Your task to perform on an android device: Search for "acer nitro" on target.com, select the first entry, and add it to the cart. Image 0: 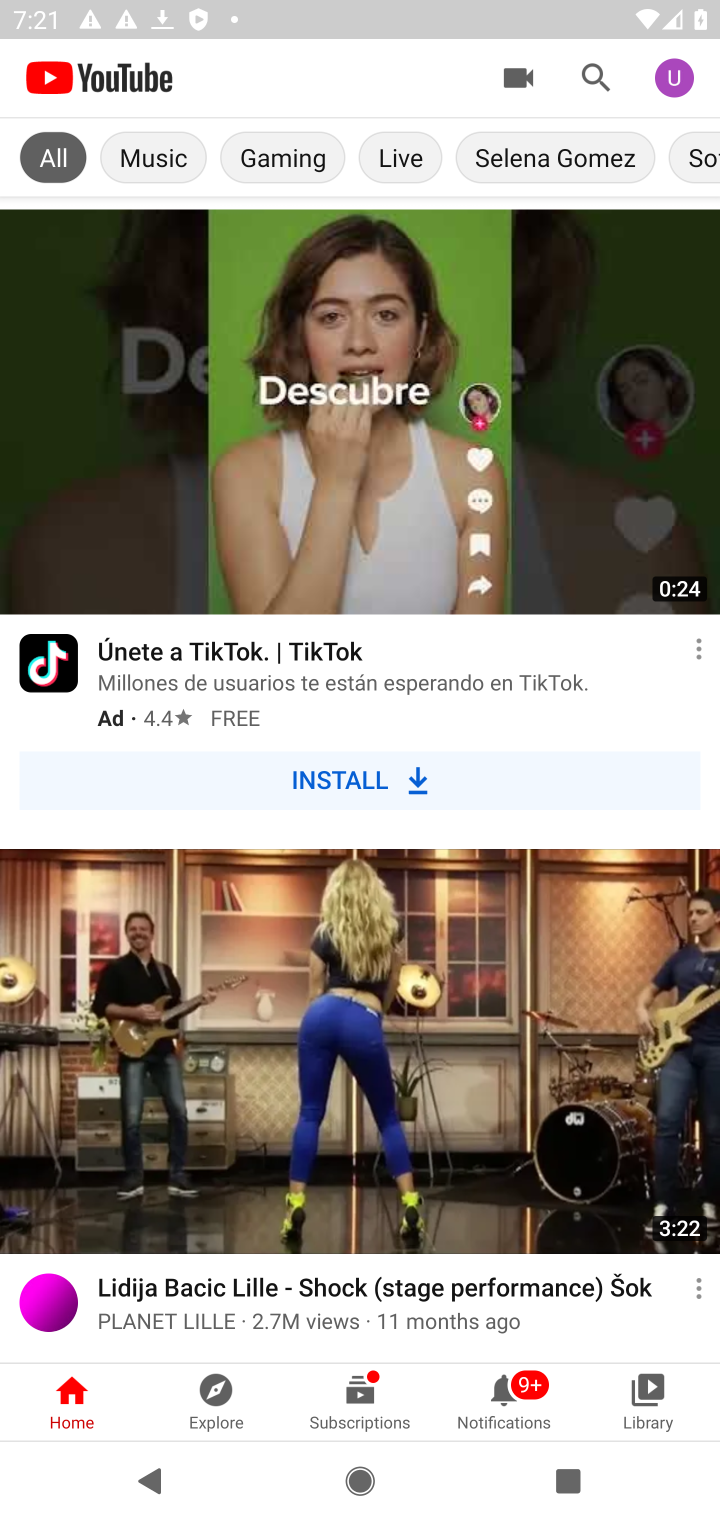
Step 0: press home button
Your task to perform on an android device: Search for "acer nitro" on target.com, select the first entry, and add it to the cart. Image 1: 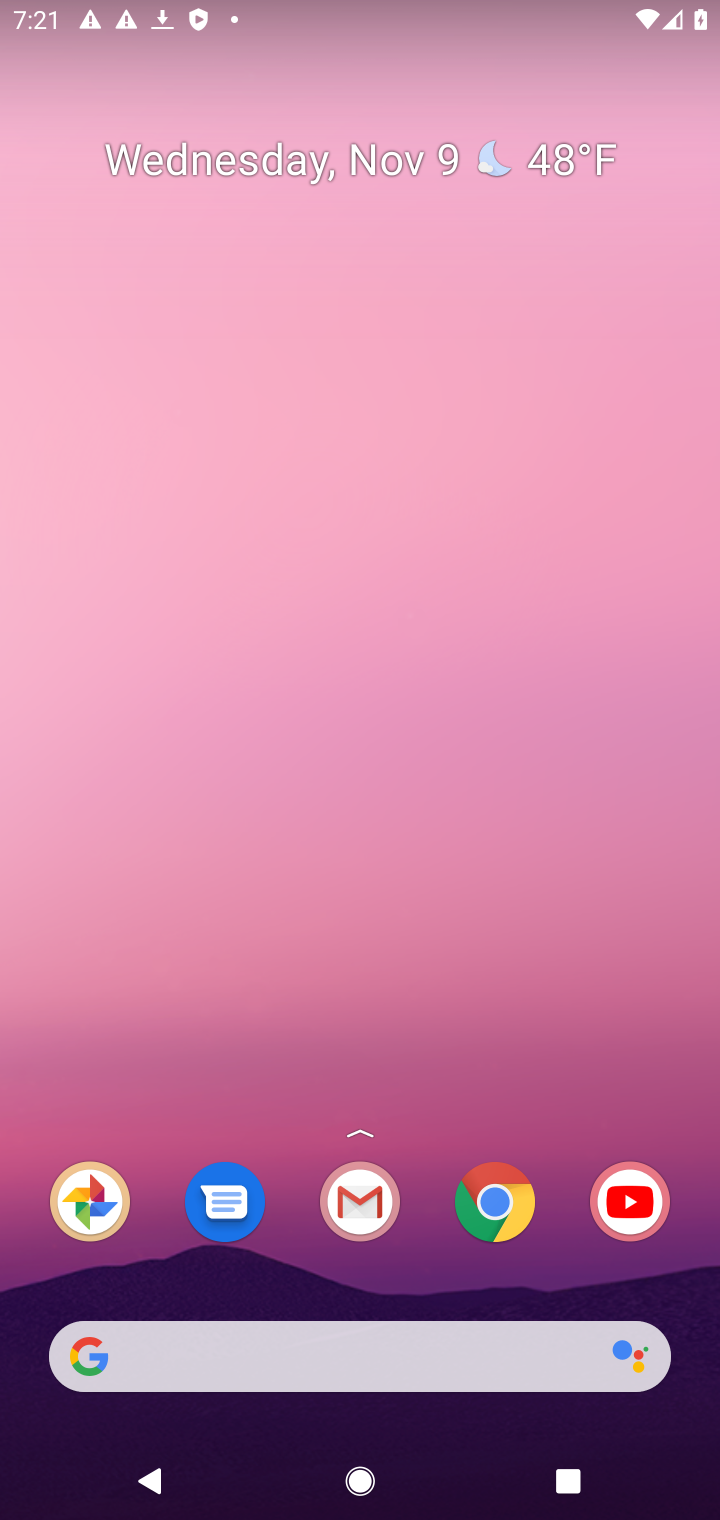
Step 1: click (498, 1202)
Your task to perform on an android device: Search for "acer nitro" on target.com, select the first entry, and add it to the cart. Image 2: 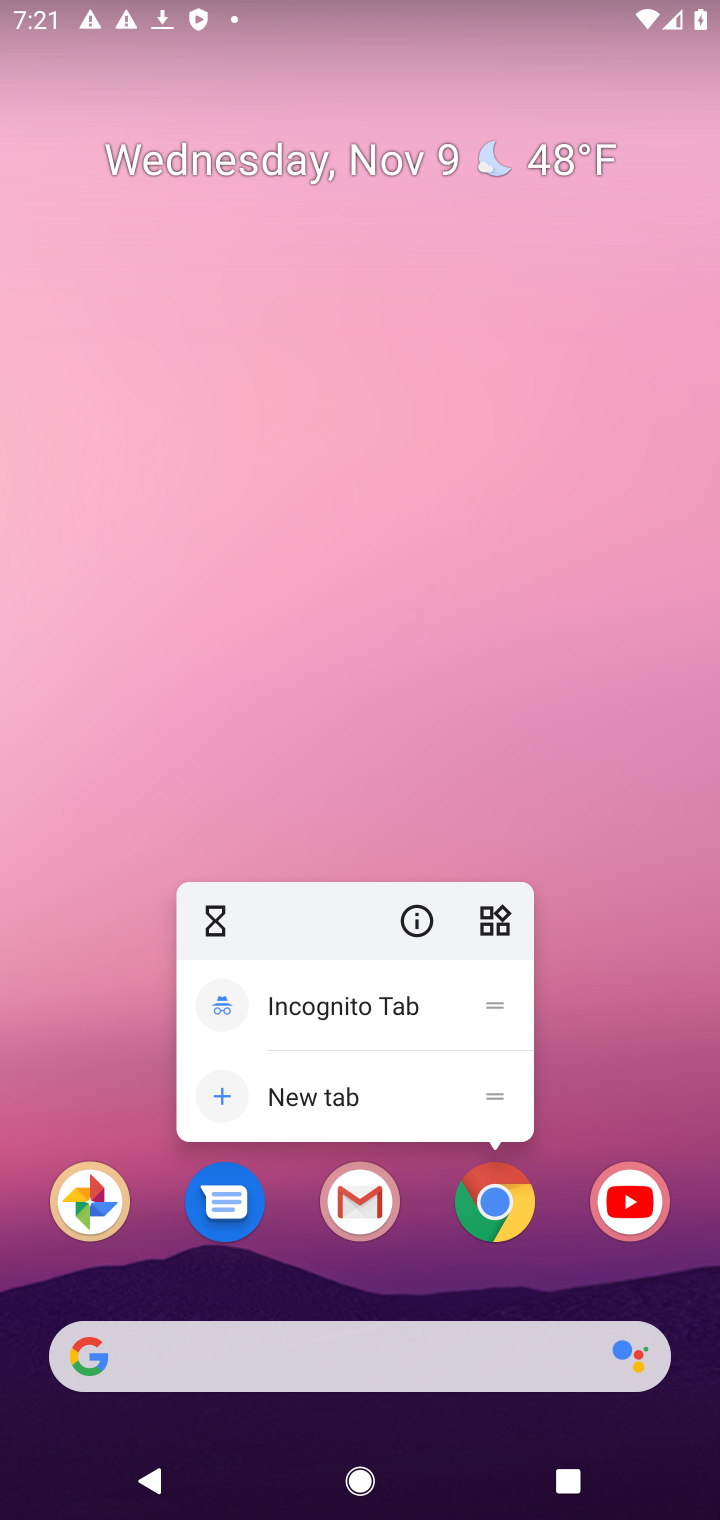
Step 2: click (498, 1202)
Your task to perform on an android device: Search for "acer nitro" on target.com, select the first entry, and add it to the cart. Image 3: 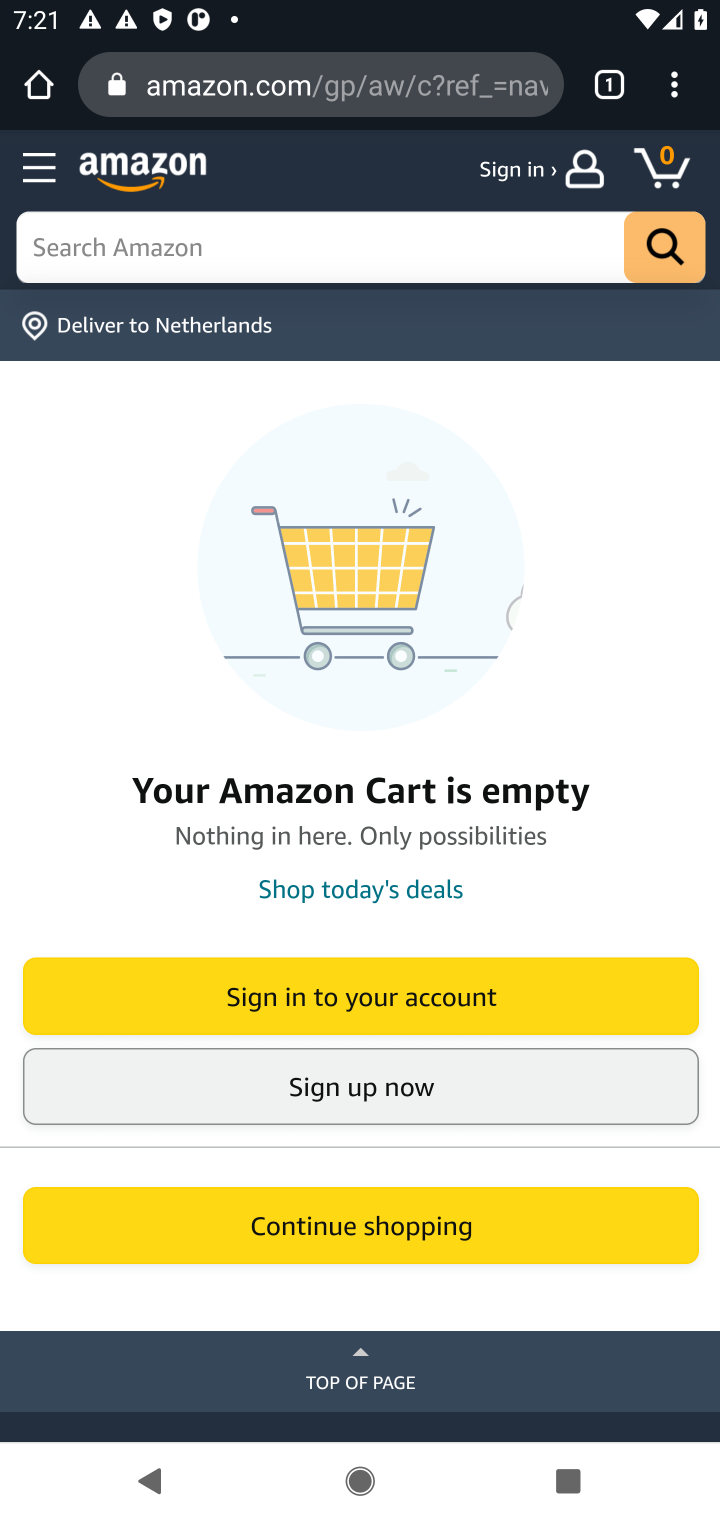
Step 3: click (390, 87)
Your task to perform on an android device: Search for "acer nitro" on target.com, select the first entry, and add it to the cart. Image 4: 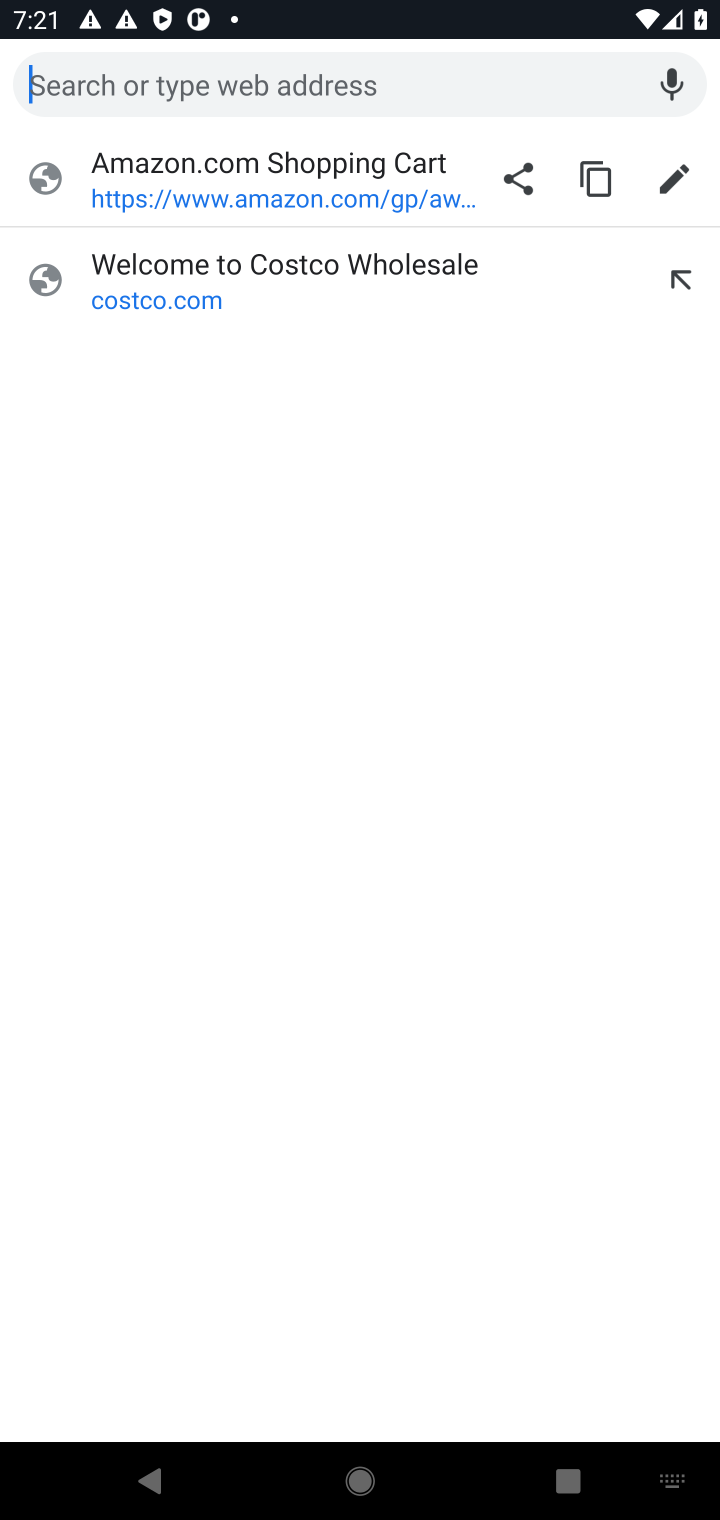
Step 4: type "target.com"
Your task to perform on an android device: Search for "acer nitro" on target.com, select the first entry, and add it to the cart. Image 5: 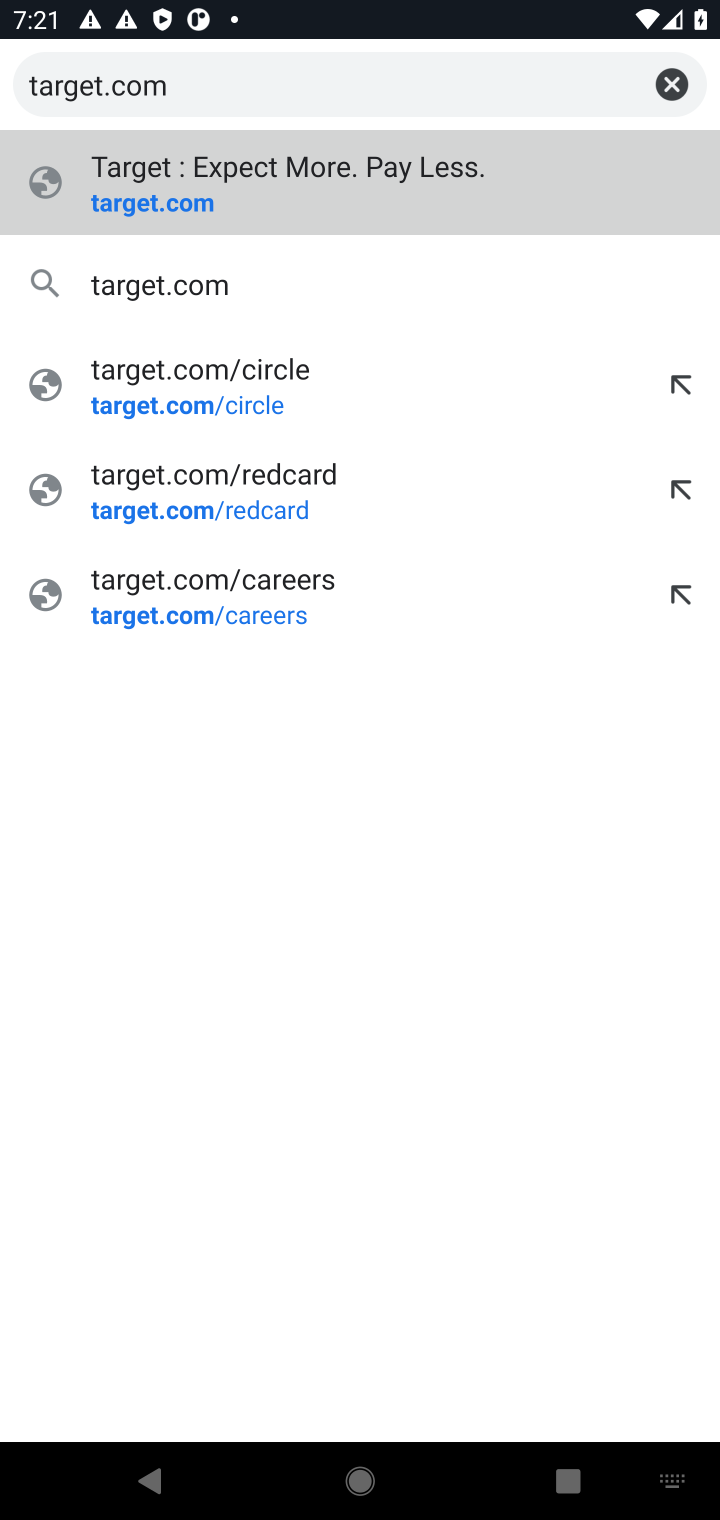
Step 5: press enter
Your task to perform on an android device: Search for "acer nitro" on target.com, select the first entry, and add it to the cart. Image 6: 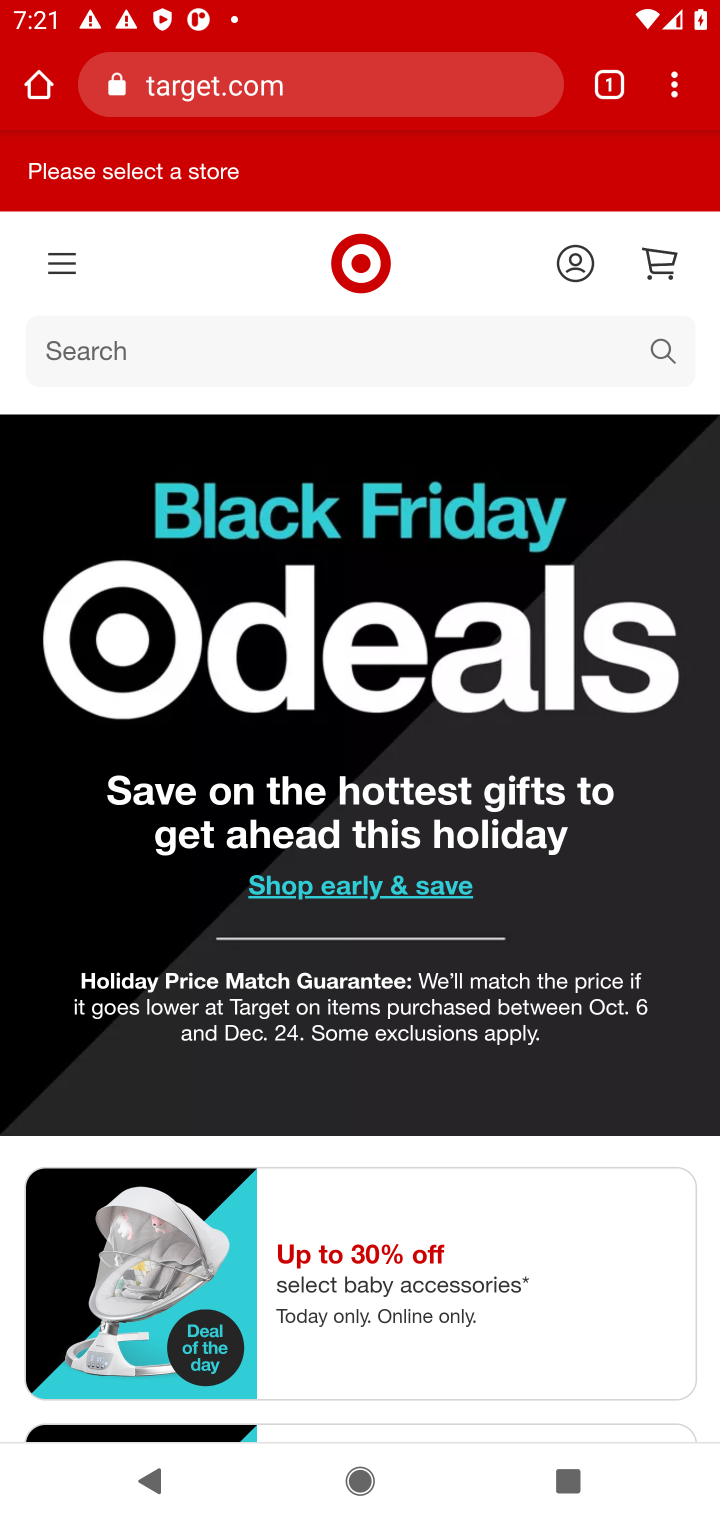
Step 6: click (245, 345)
Your task to perform on an android device: Search for "acer nitro" on target.com, select the first entry, and add it to the cart. Image 7: 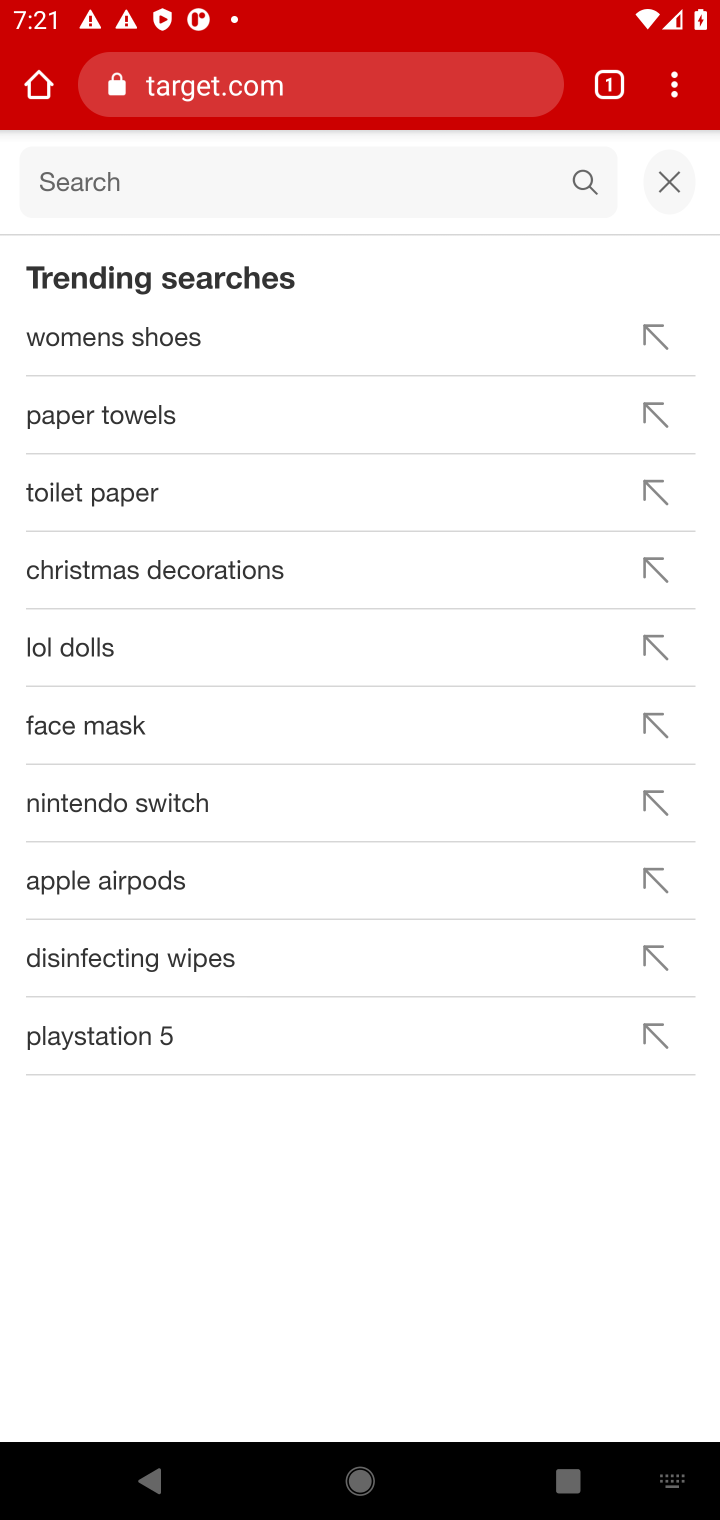
Step 7: click (100, 174)
Your task to perform on an android device: Search for "acer nitro" on target.com, select the first entry, and add it to the cart. Image 8: 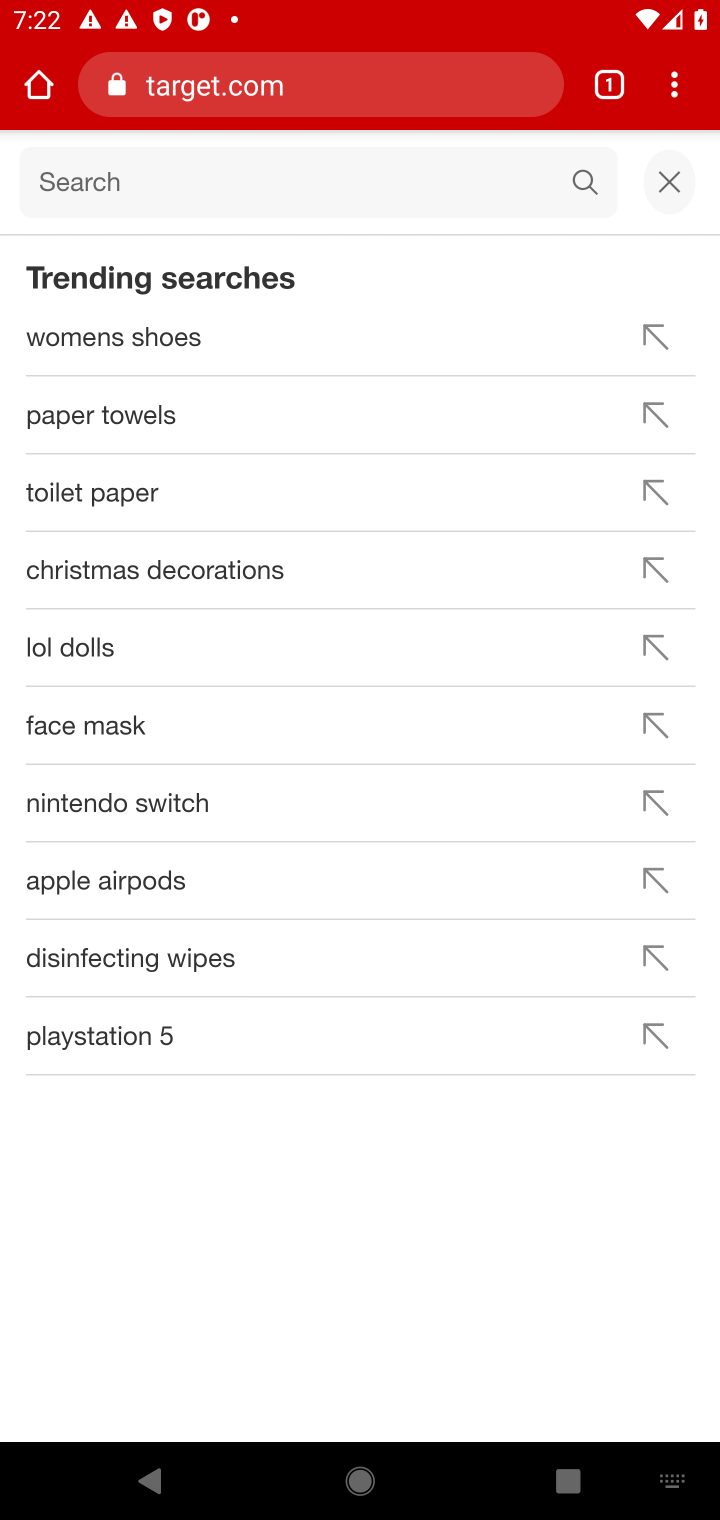
Step 8: type "acer nitro"
Your task to perform on an android device: Search for "acer nitro" on target.com, select the first entry, and add it to the cart. Image 9: 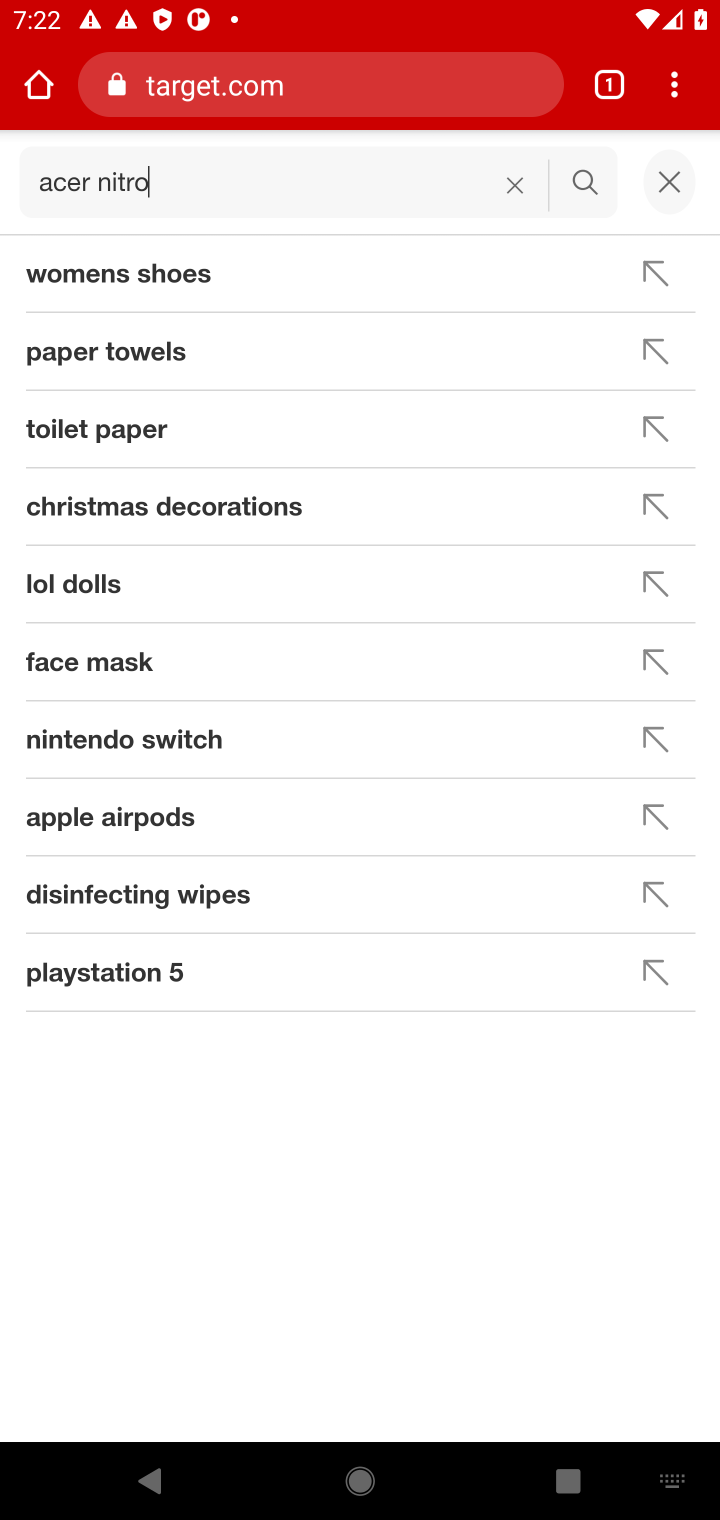
Step 9: press enter
Your task to perform on an android device: Search for "acer nitro" on target.com, select the first entry, and add it to the cart. Image 10: 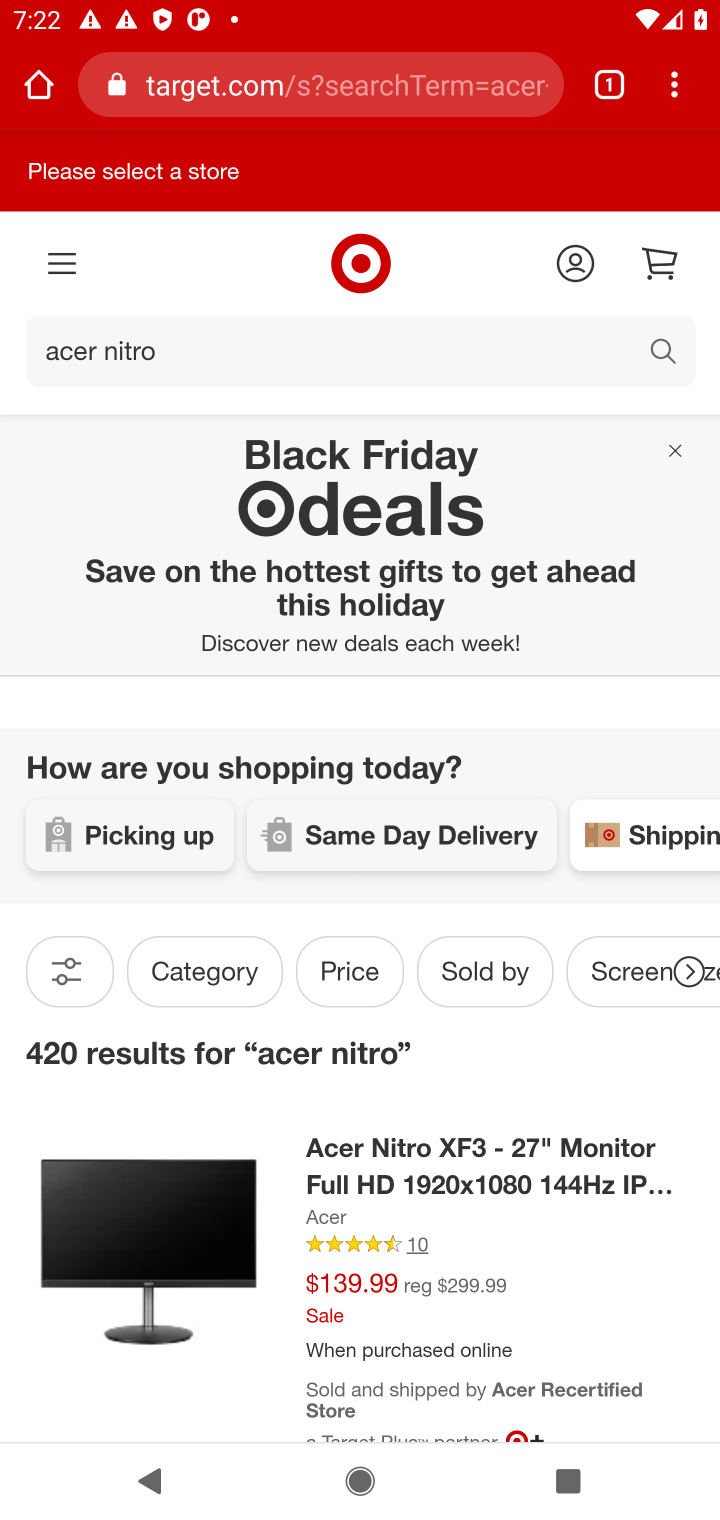
Step 10: drag from (298, 1182) to (390, 670)
Your task to perform on an android device: Search for "acer nitro" on target.com, select the first entry, and add it to the cart. Image 11: 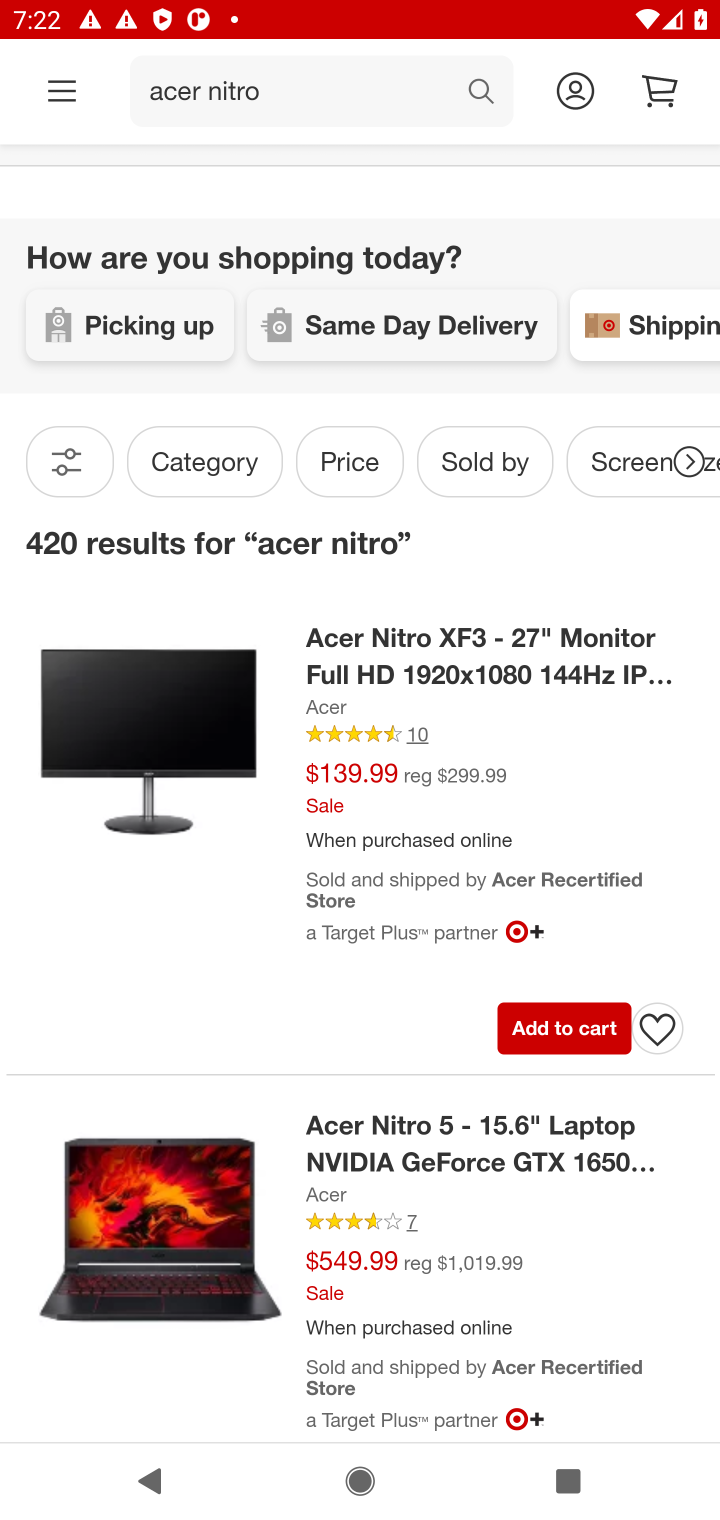
Step 11: click (551, 1028)
Your task to perform on an android device: Search for "acer nitro" on target.com, select the first entry, and add it to the cart. Image 12: 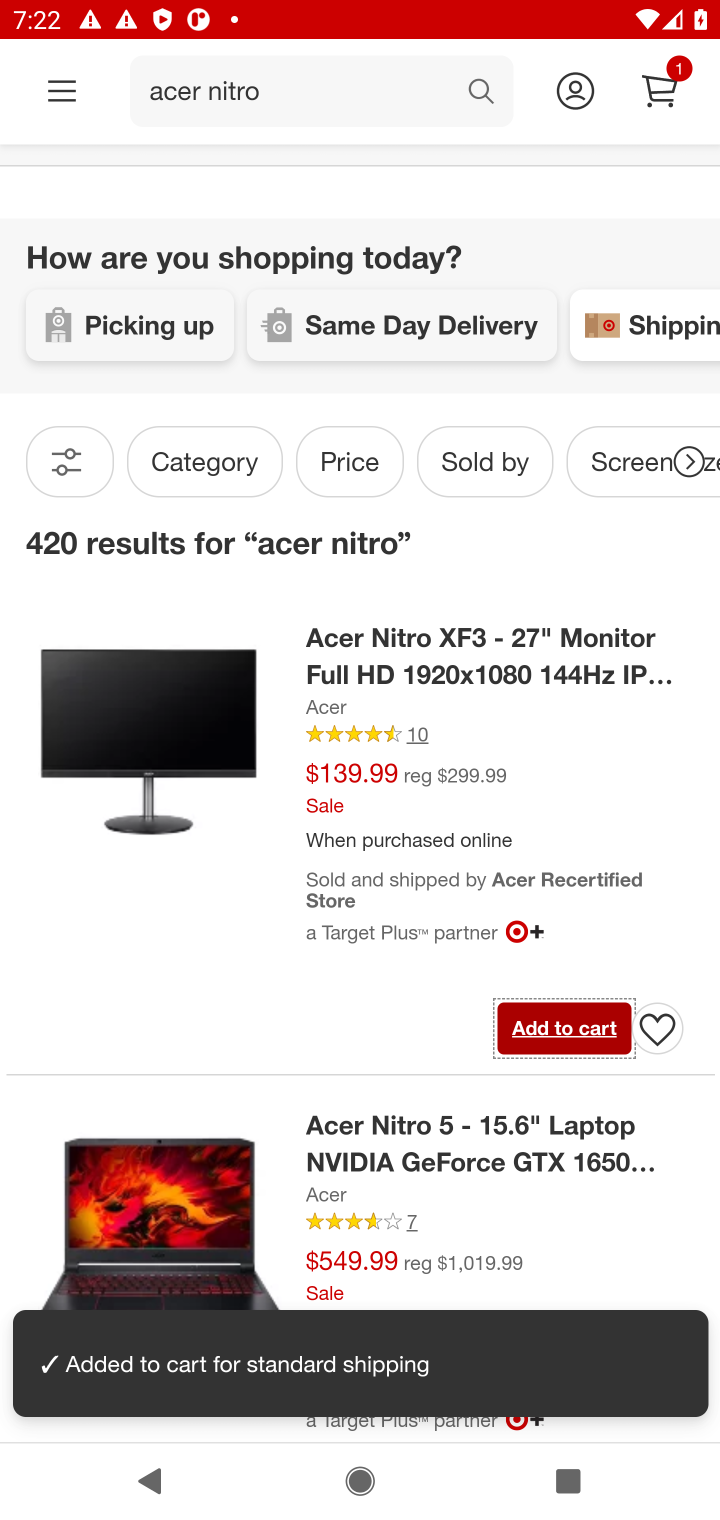
Step 12: click (639, 64)
Your task to perform on an android device: Search for "acer nitro" on target.com, select the first entry, and add it to the cart. Image 13: 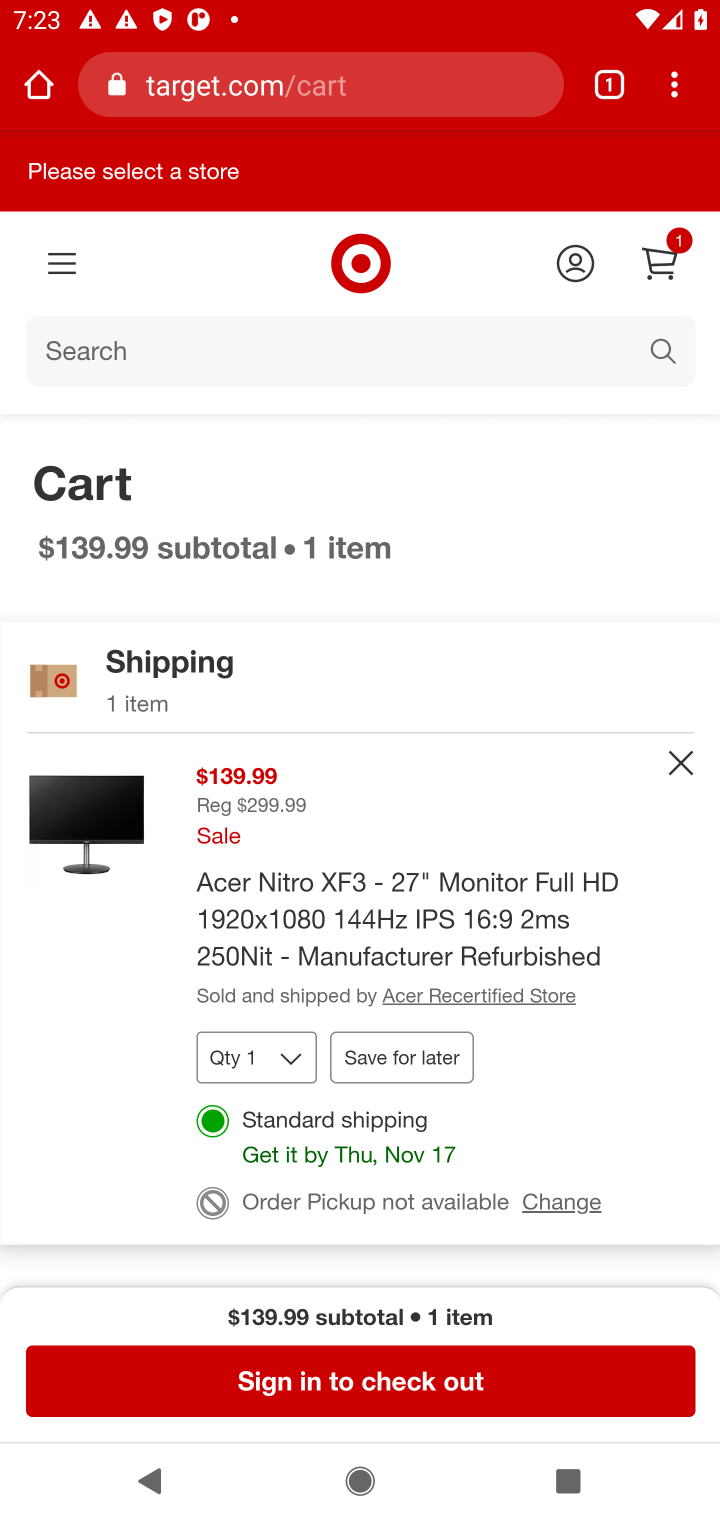
Step 13: task complete